Your task to perform on an android device: turn off airplane mode Image 0: 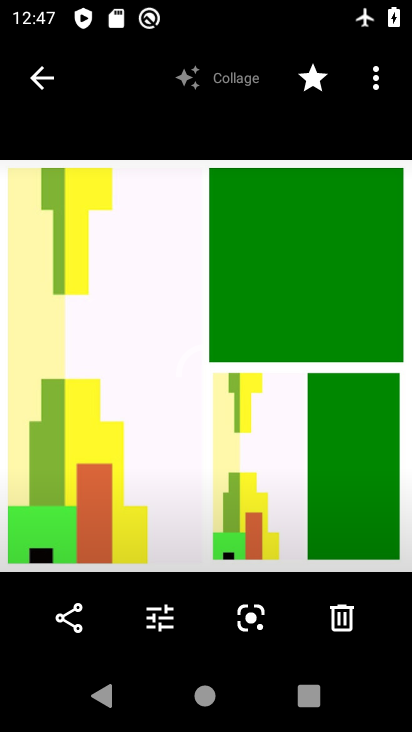
Step 0: press home button
Your task to perform on an android device: turn off airplane mode Image 1: 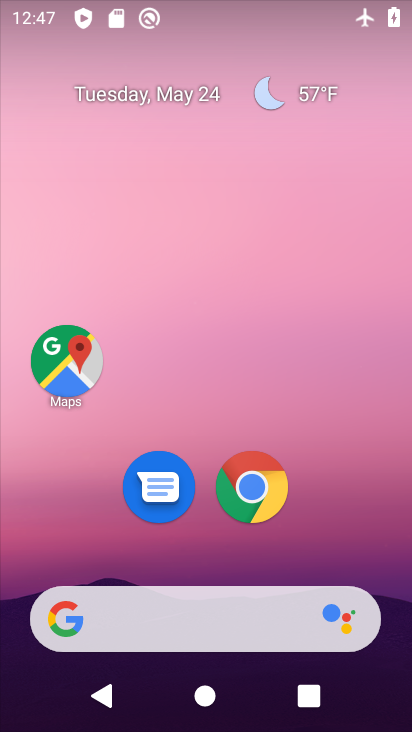
Step 1: drag from (243, 723) to (182, 98)
Your task to perform on an android device: turn off airplane mode Image 2: 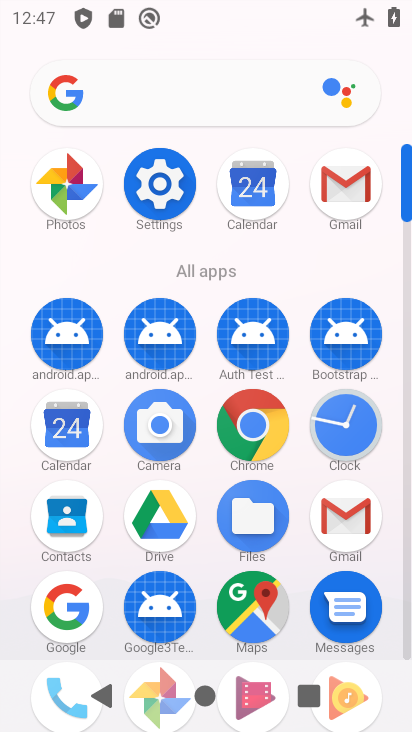
Step 2: click (170, 168)
Your task to perform on an android device: turn off airplane mode Image 3: 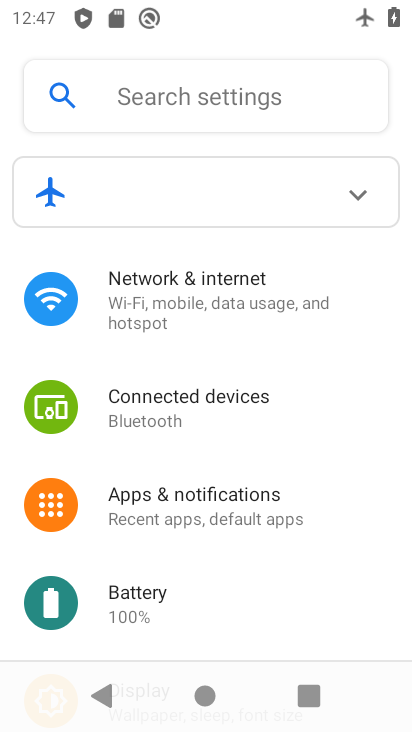
Step 3: click (161, 308)
Your task to perform on an android device: turn off airplane mode Image 4: 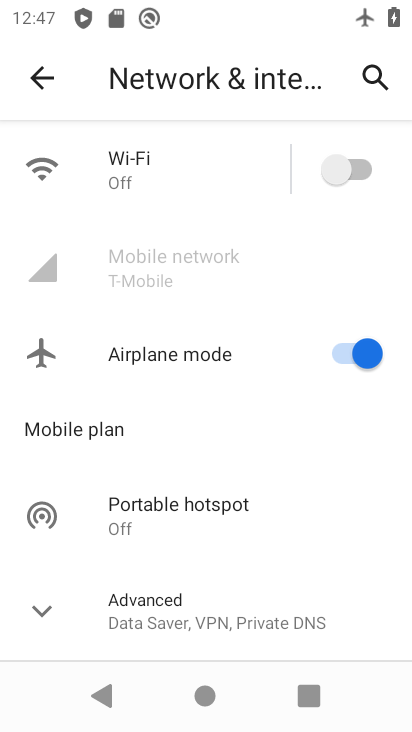
Step 4: click (334, 349)
Your task to perform on an android device: turn off airplane mode Image 5: 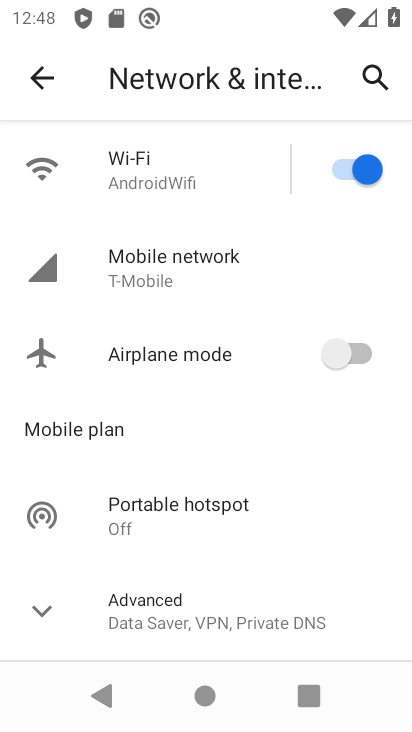
Step 5: task complete